Your task to perform on an android device: set the stopwatch Image 0: 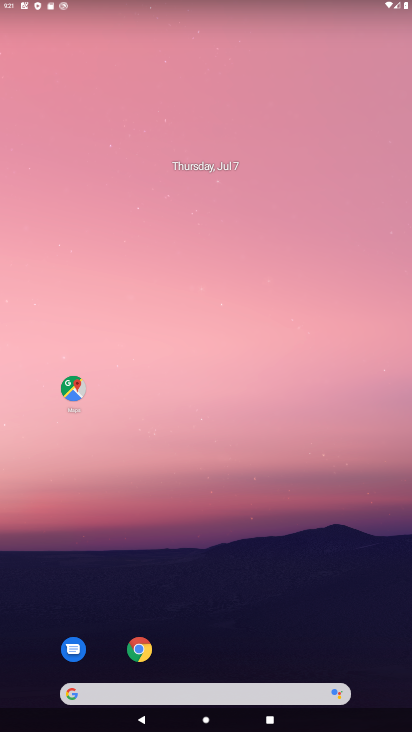
Step 0: drag from (179, 512) to (200, 256)
Your task to perform on an android device: set the stopwatch Image 1: 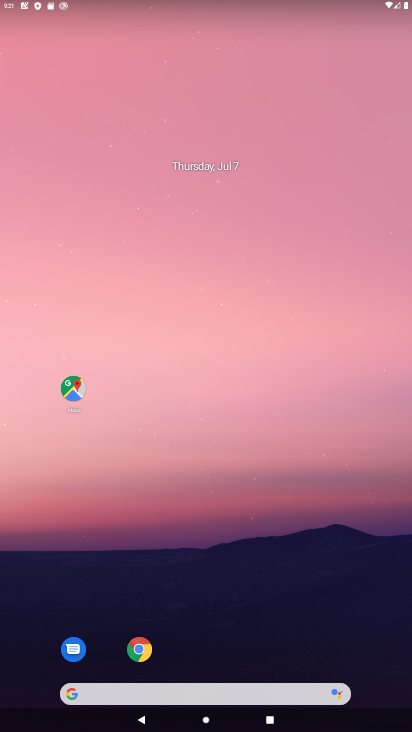
Step 1: drag from (214, 515) to (289, 90)
Your task to perform on an android device: set the stopwatch Image 2: 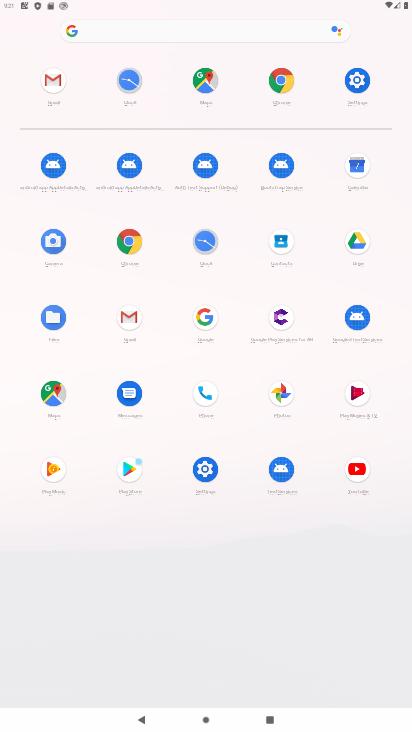
Step 2: click (206, 246)
Your task to perform on an android device: set the stopwatch Image 3: 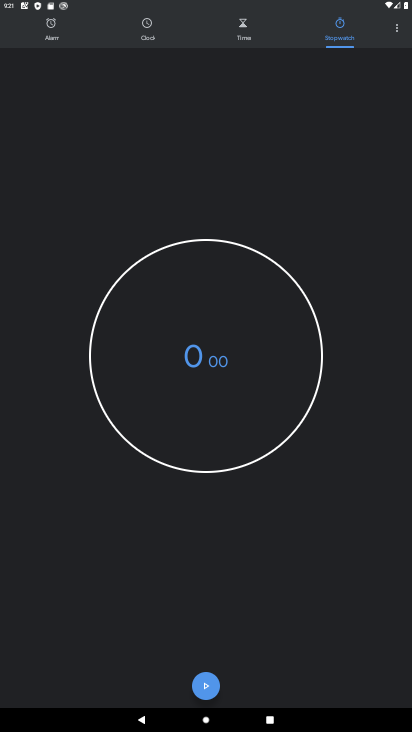
Step 3: task complete